Your task to perform on an android device: Go to network settings Image 0: 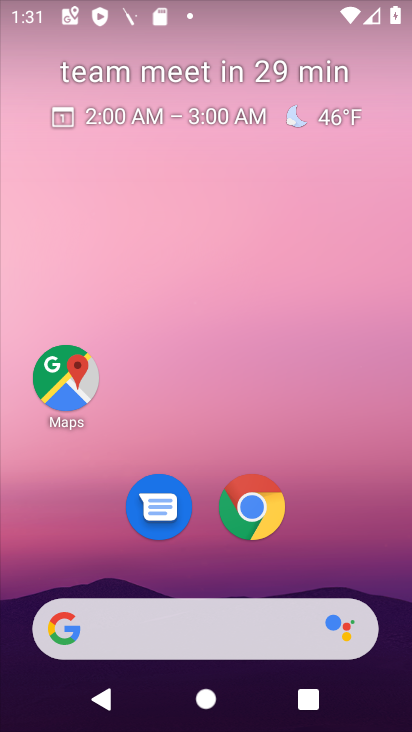
Step 0: drag from (304, 662) to (305, 289)
Your task to perform on an android device: Go to network settings Image 1: 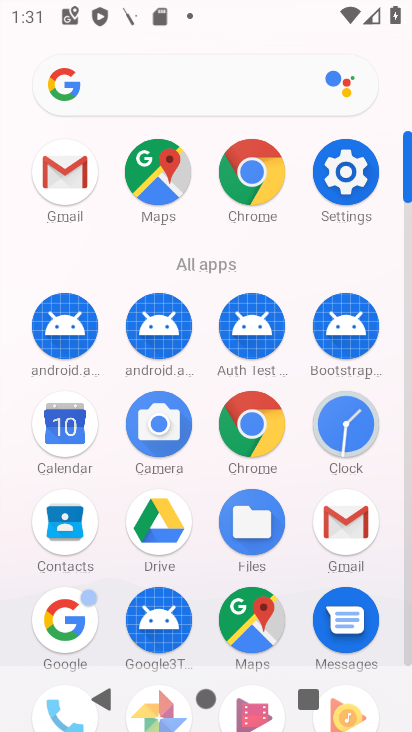
Step 1: click (352, 193)
Your task to perform on an android device: Go to network settings Image 2: 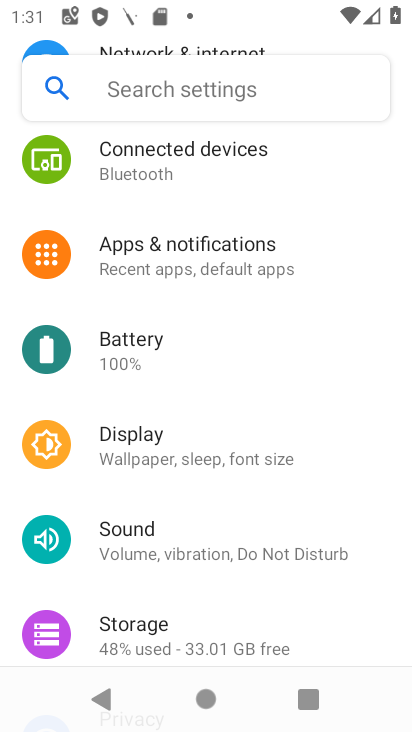
Step 2: drag from (177, 225) to (166, 396)
Your task to perform on an android device: Go to network settings Image 3: 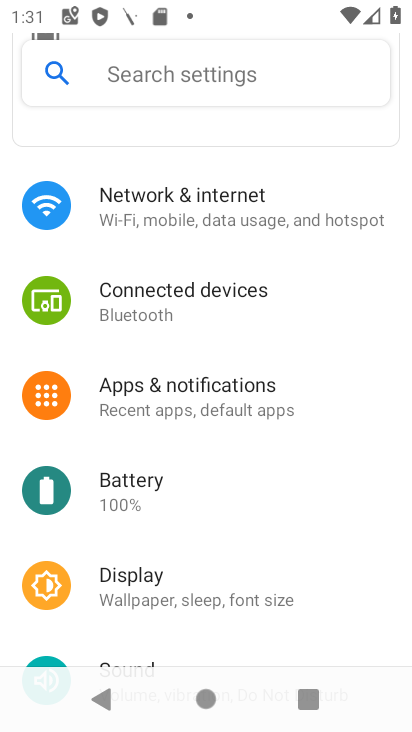
Step 3: click (193, 209)
Your task to perform on an android device: Go to network settings Image 4: 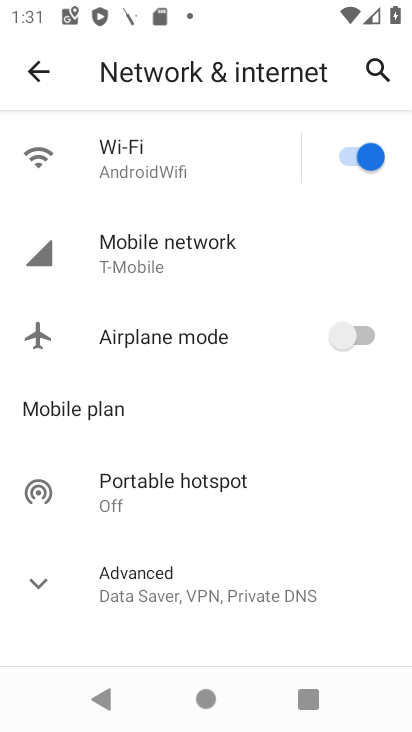
Step 4: task complete